Your task to perform on an android device: Go to ESPN.com Image 0: 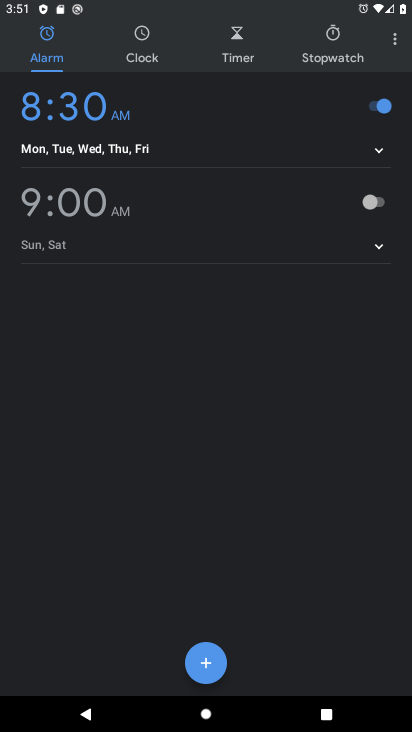
Step 0: press home button
Your task to perform on an android device: Go to ESPN.com Image 1: 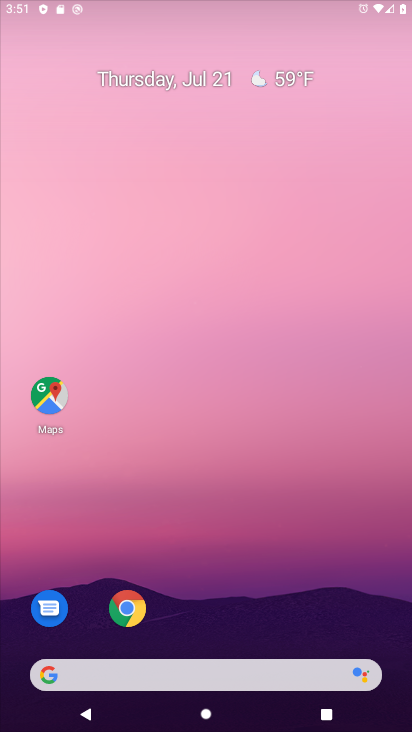
Step 1: drag from (263, 595) to (293, 68)
Your task to perform on an android device: Go to ESPN.com Image 2: 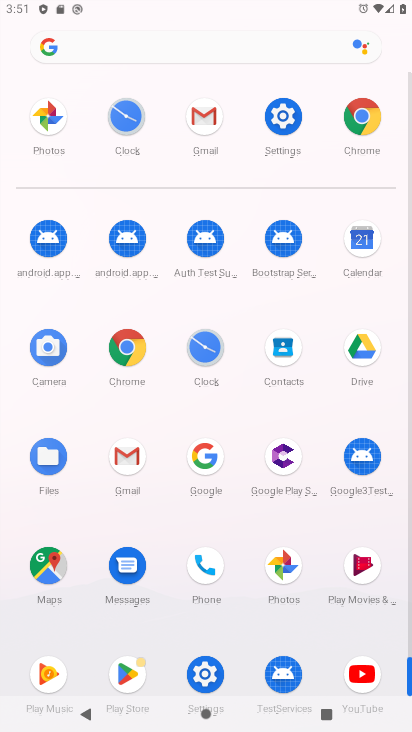
Step 2: click (136, 345)
Your task to perform on an android device: Go to ESPN.com Image 3: 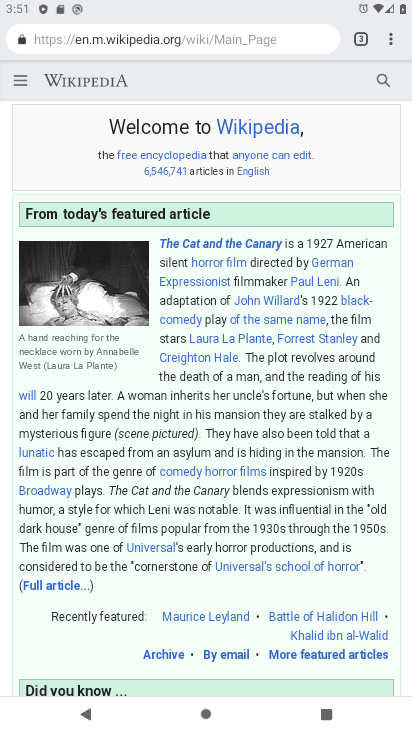
Step 3: click (130, 41)
Your task to perform on an android device: Go to ESPN.com Image 4: 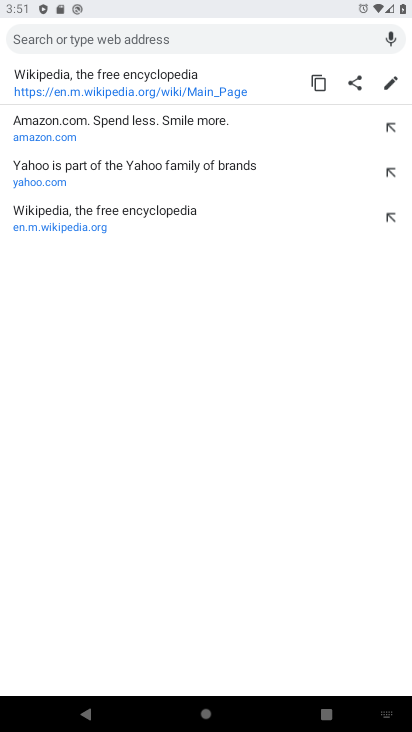
Step 4: type "espn.com"
Your task to perform on an android device: Go to ESPN.com Image 5: 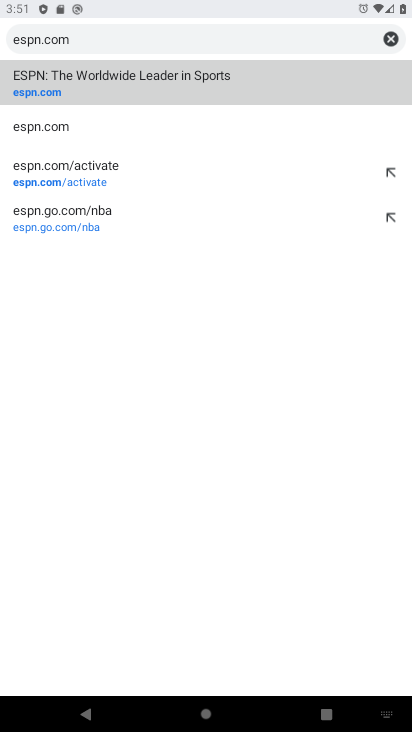
Step 5: click (196, 82)
Your task to perform on an android device: Go to ESPN.com Image 6: 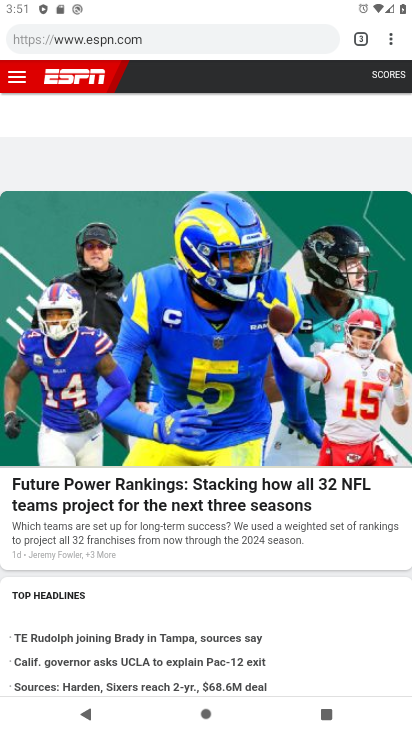
Step 6: task complete